Your task to perform on an android device: empty trash in the gmail app Image 0: 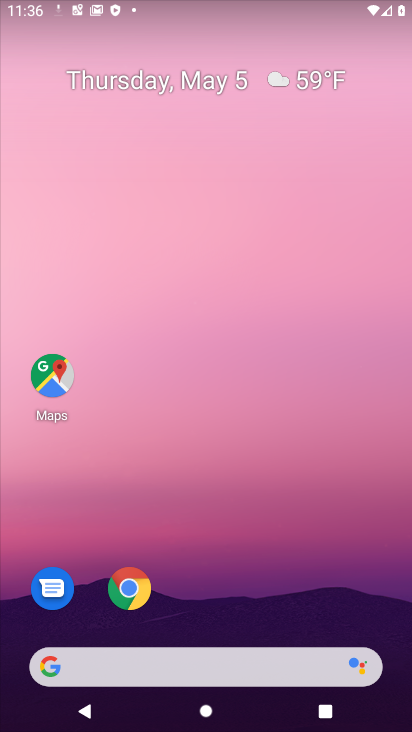
Step 0: drag from (172, 665) to (284, 108)
Your task to perform on an android device: empty trash in the gmail app Image 1: 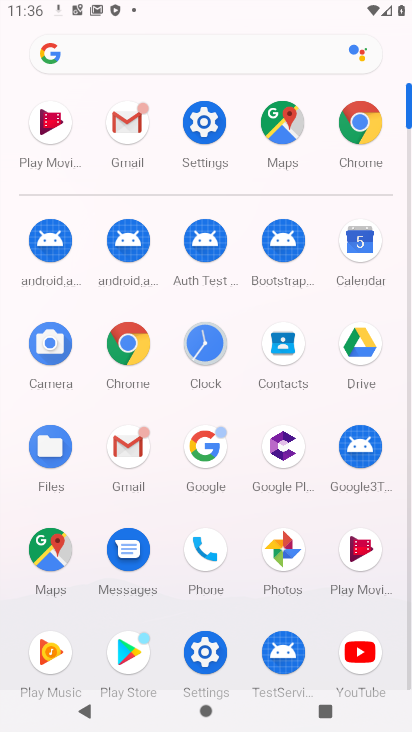
Step 1: click (123, 126)
Your task to perform on an android device: empty trash in the gmail app Image 2: 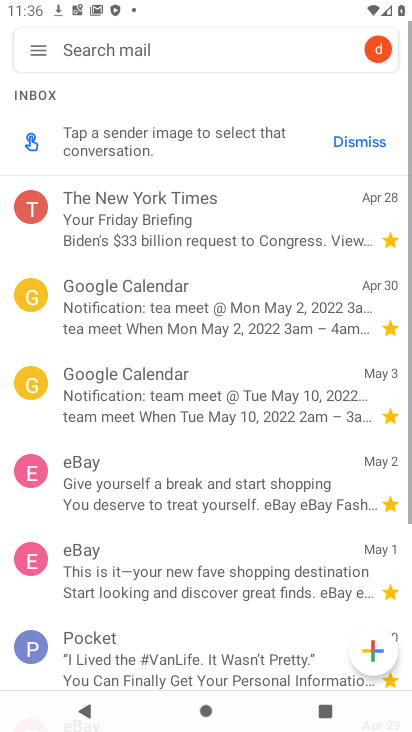
Step 2: click (39, 45)
Your task to perform on an android device: empty trash in the gmail app Image 3: 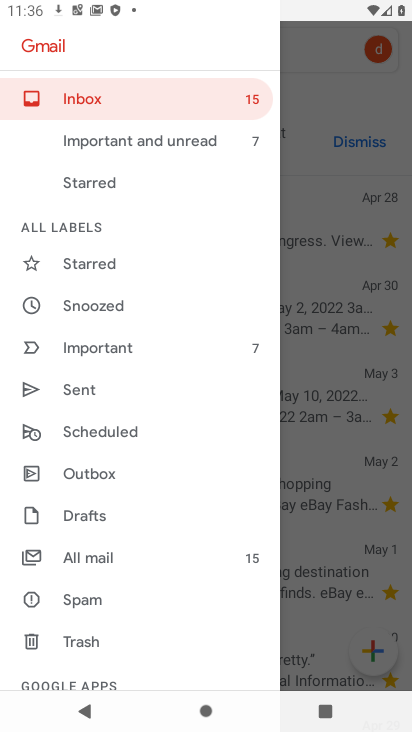
Step 3: click (76, 638)
Your task to perform on an android device: empty trash in the gmail app Image 4: 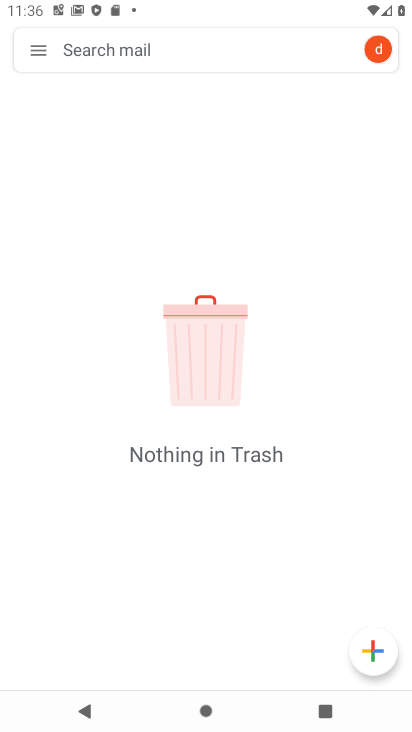
Step 4: task complete